Your task to perform on an android device: change notification settings in the gmail app Image 0: 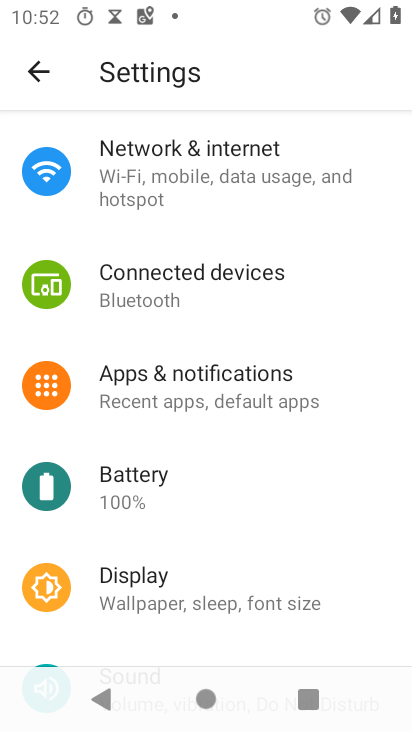
Step 0: press home button
Your task to perform on an android device: change notification settings in the gmail app Image 1: 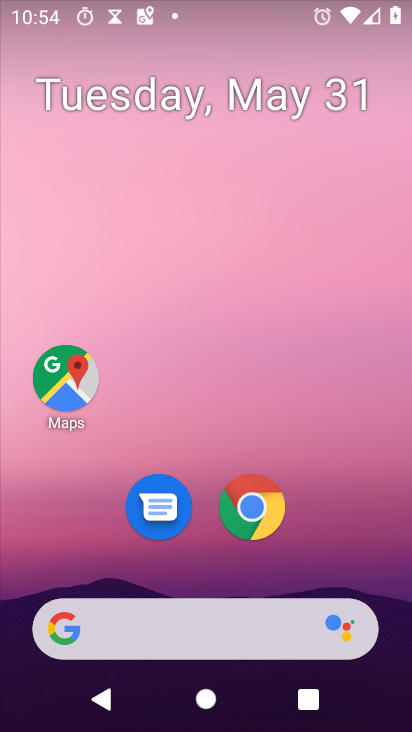
Step 1: drag from (29, 573) to (278, 112)
Your task to perform on an android device: change notification settings in the gmail app Image 2: 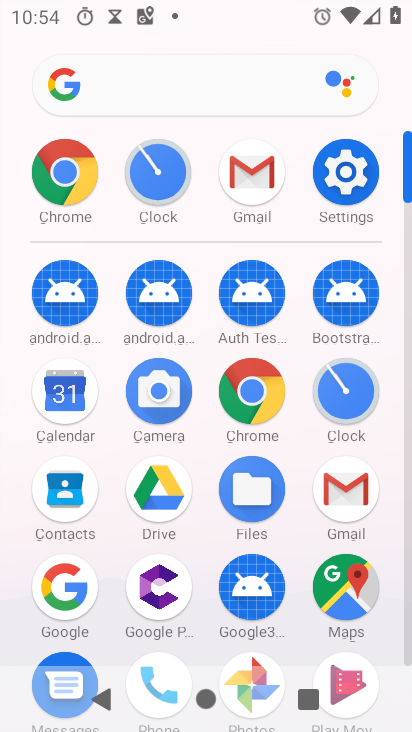
Step 2: click (248, 173)
Your task to perform on an android device: change notification settings in the gmail app Image 3: 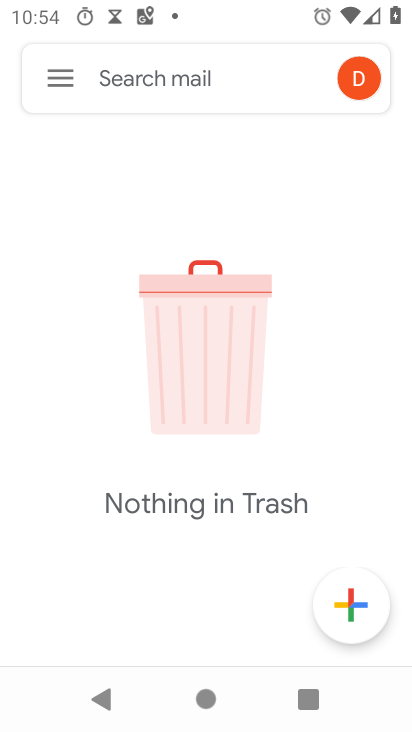
Step 3: click (43, 68)
Your task to perform on an android device: change notification settings in the gmail app Image 4: 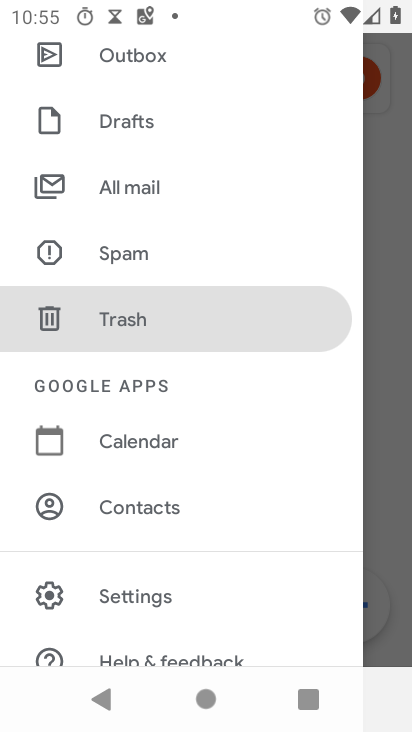
Step 4: drag from (149, 107) to (15, 711)
Your task to perform on an android device: change notification settings in the gmail app Image 5: 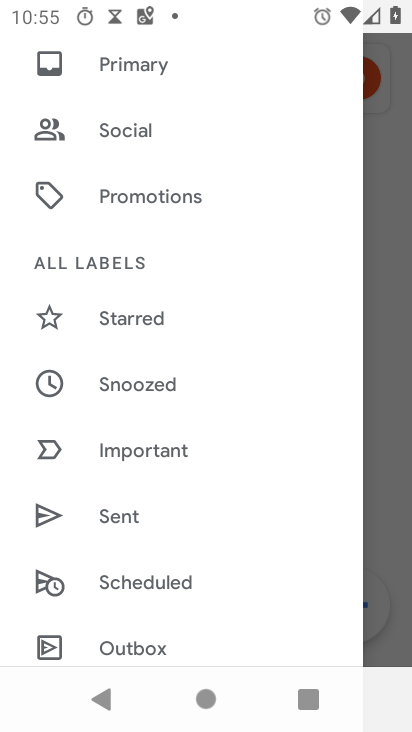
Step 5: drag from (96, 123) to (36, 620)
Your task to perform on an android device: change notification settings in the gmail app Image 6: 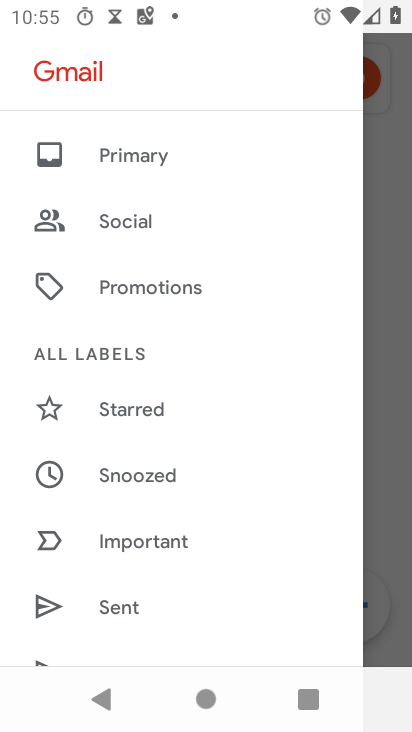
Step 6: drag from (22, 543) to (274, 12)
Your task to perform on an android device: change notification settings in the gmail app Image 7: 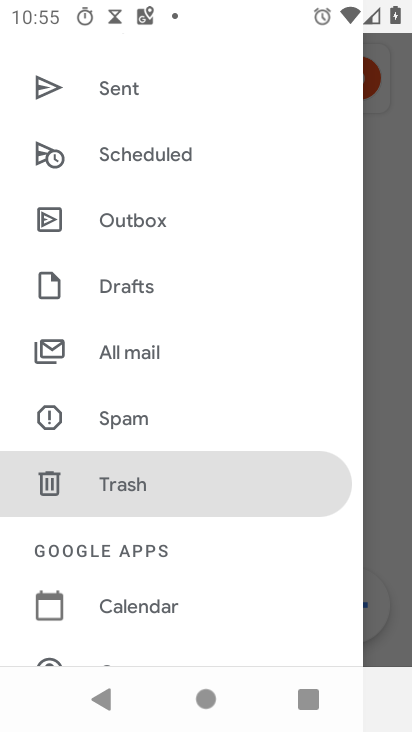
Step 7: drag from (2, 514) to (276, 46)
Your task to perform on an android device: change notification settings in the gmail app Image 8: 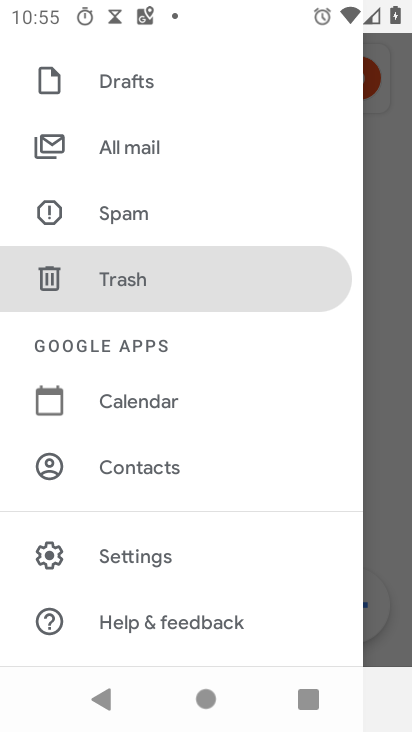
Step 8: click (76, 557)
Your task to perform on an android device: change notification settings in the gmail app Image 9: 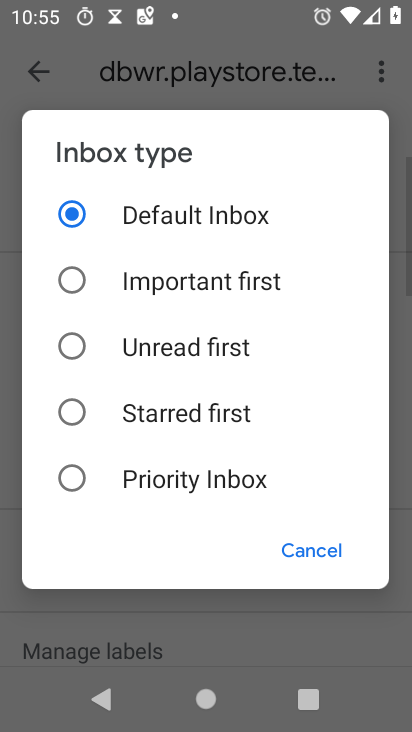
Step 9: click (316, 545)
Your task to perform on an android device: change notification settings in the gmail app Image 10: 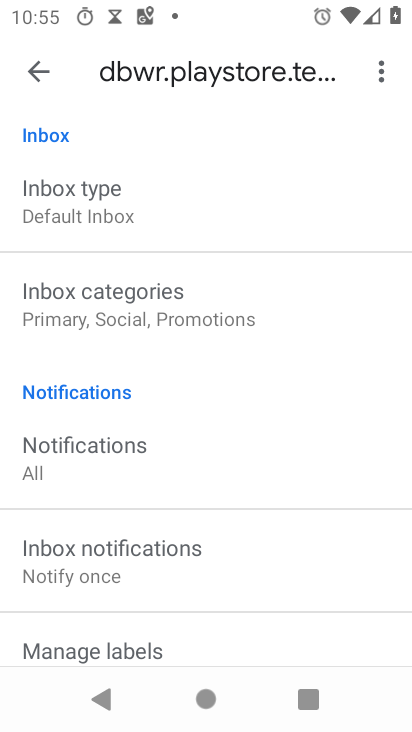
Step 10: drag from (10, 577) to (264, 130)
Your task to perform on an android device: change notification settings in the gmail app Image 11: 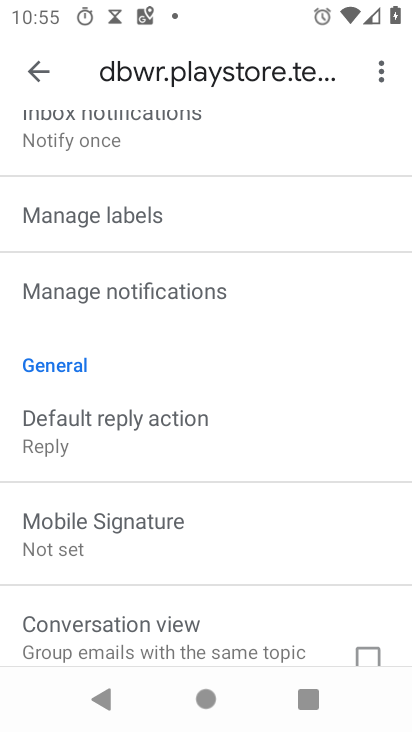
Step 11: click (170, 292)
Your task to perform on an android device: change notification settings in the gmail app Image 12: 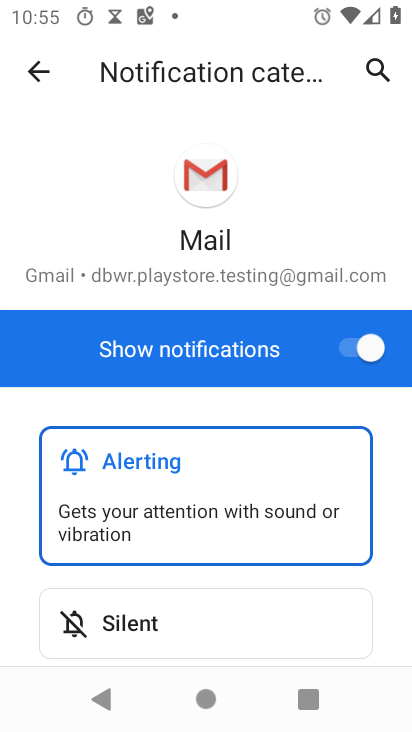
Step 12: click (364, 356)
Your task to perform on an android device: change notification settings in the gmail app Image 13: 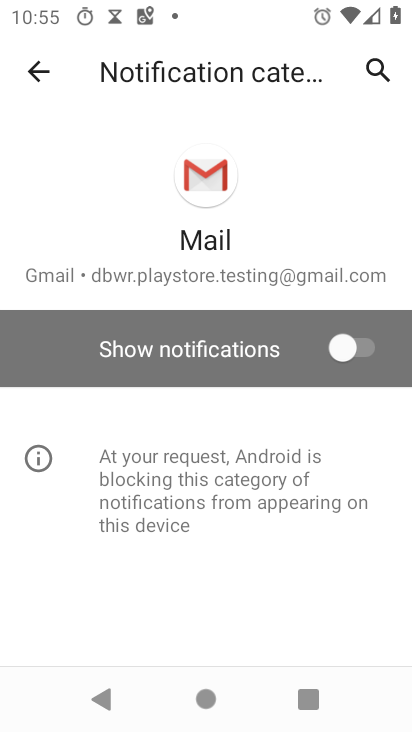
Step 13: task complete